Your task to perform on an android device: check android version Image 0: 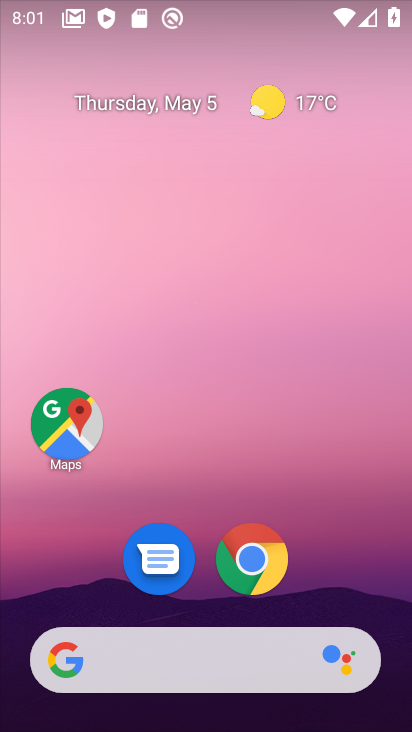
Step 0: drag from (362, 620) to (345, 21)
Your task to perform on an android device: check android version Image 1: 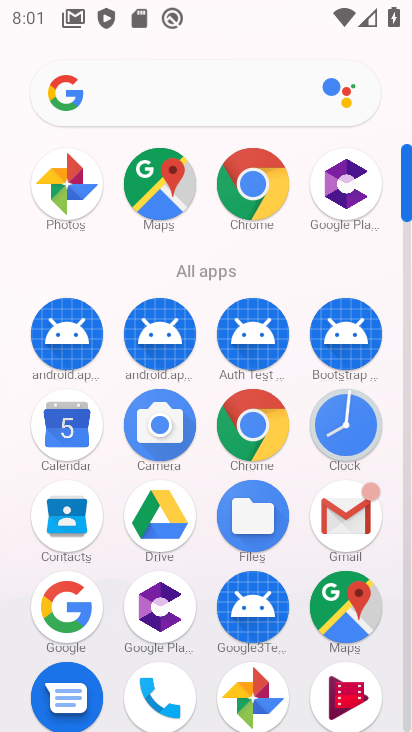
Step 1: drag from (406, 612) to (412, 547)
Your task to perform on an android device: check android version Image 2: 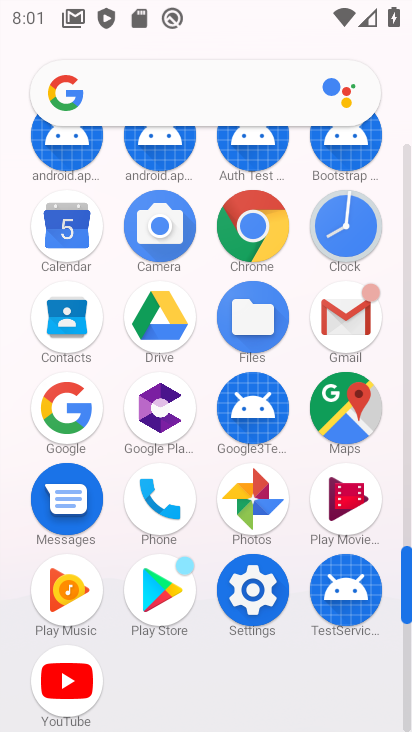
Step 2: click (252, 594)
Your task to perform on an android device: check android version Image 3: 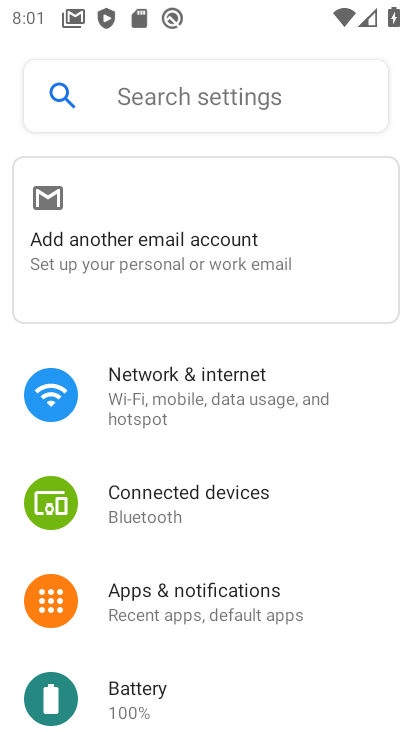
Step 3: drag from (394, 684) to (386, 228)
Your task to perform on an android device: check android version Image 4: 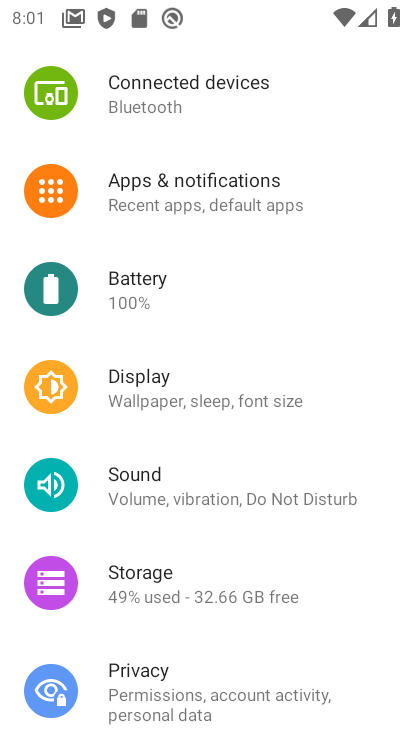
Step 4: drag from (399, 683) to (393, 259)
Your task to perform on an android device: check android version Image 5: 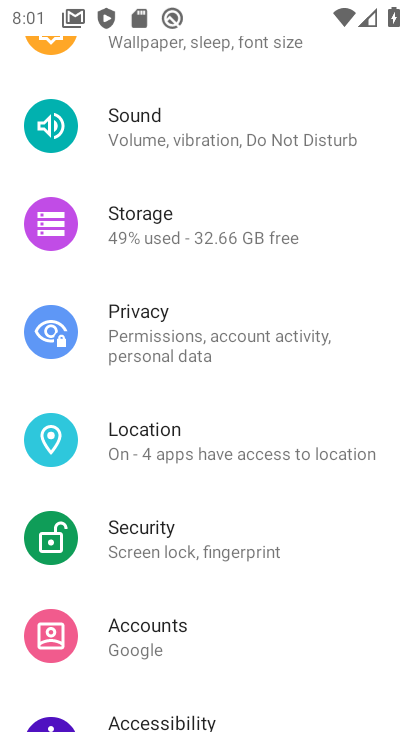
Step 5: drag from (374, 641) to (363, 238)
Your task to perform on an android device: check android version Image 6: 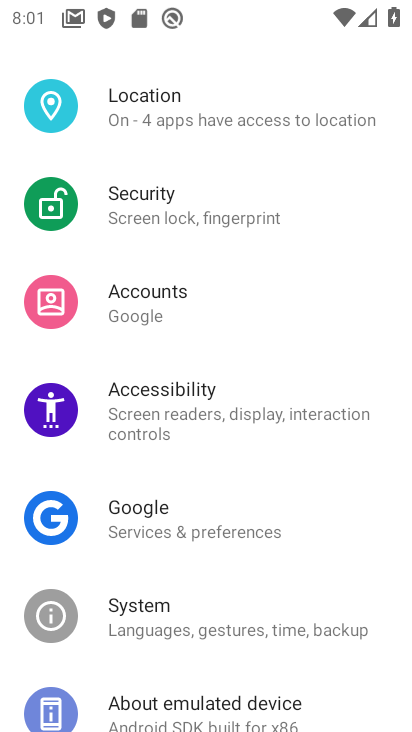
Step 6: drag from (400, 650) to (383, 294)
Your task to perform on an android device: check android version Image 7: 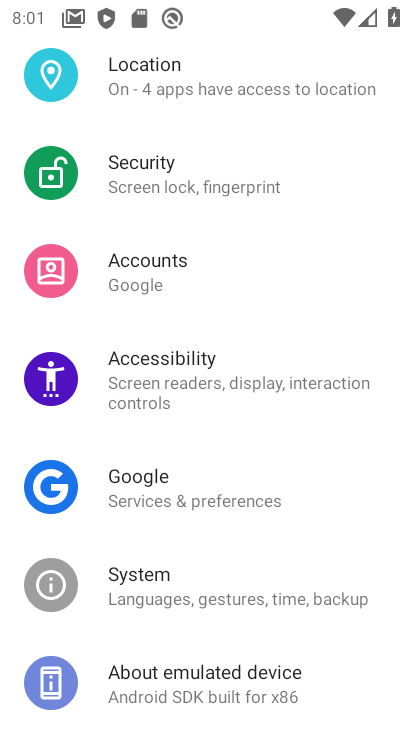
Step 7: click (210, 691)
Your task to perform on an android device: check android version Image 8: 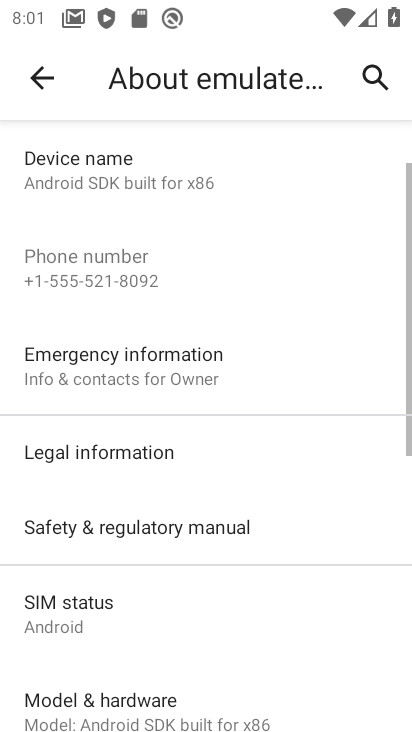
Step 8: drag from (326, 636) to (299, 249)
Your task to perform on an android device: check android version Image 9: 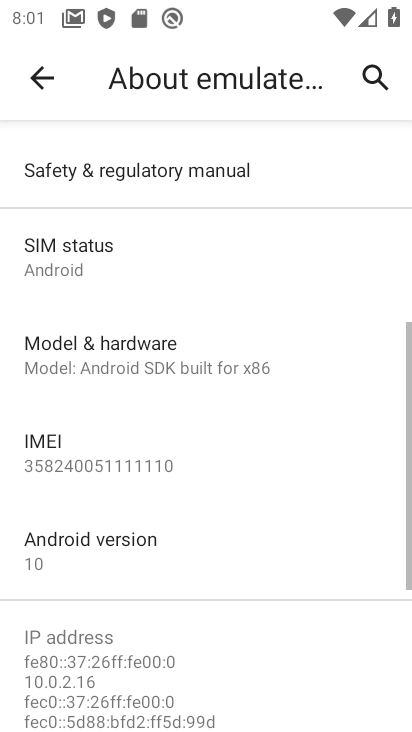
Step 9: click (62, 542)
Your task to perform on an android device: check android version Image 10: 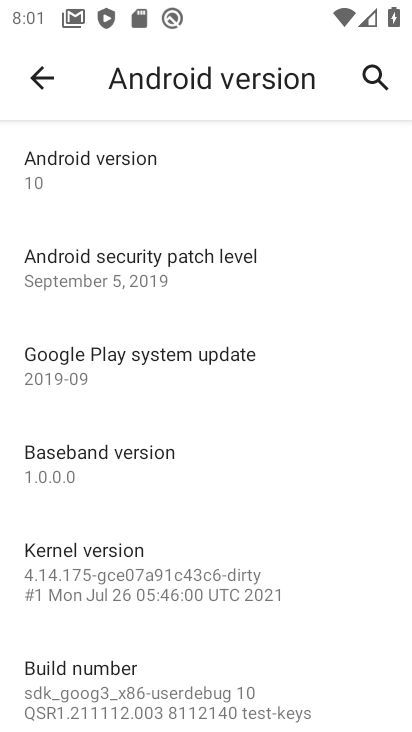
Step 10: drag from (299, 608) to (294, 276)
Your task to perform on an android device: check android version Image 11: 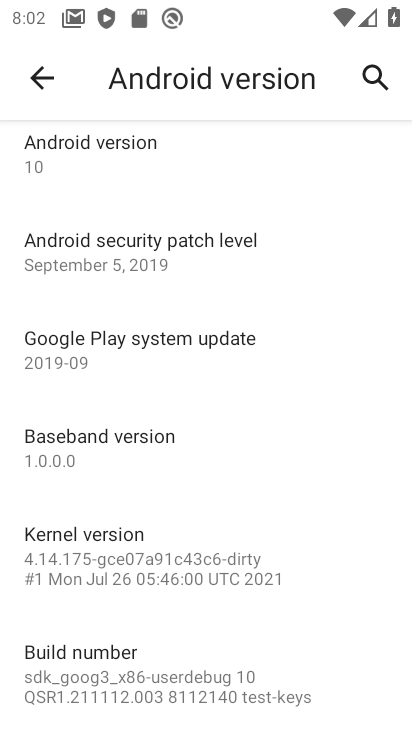
Step 11: click (78, 140)
Your task to perform on an android device: check android version Image 12: 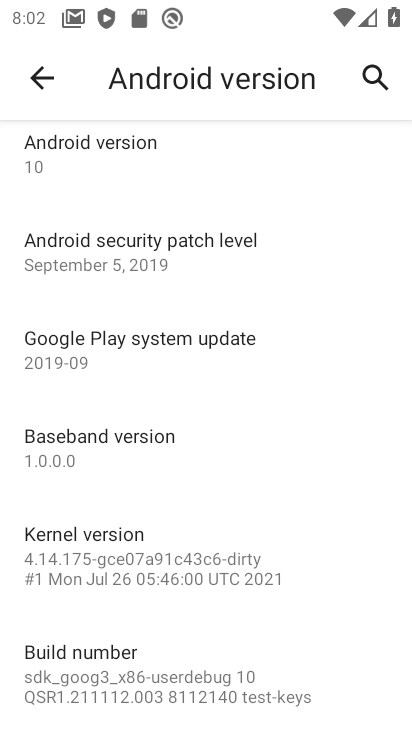
Step 12: click (72, 142)
Your task to perform on an android device: check android version Image 13: 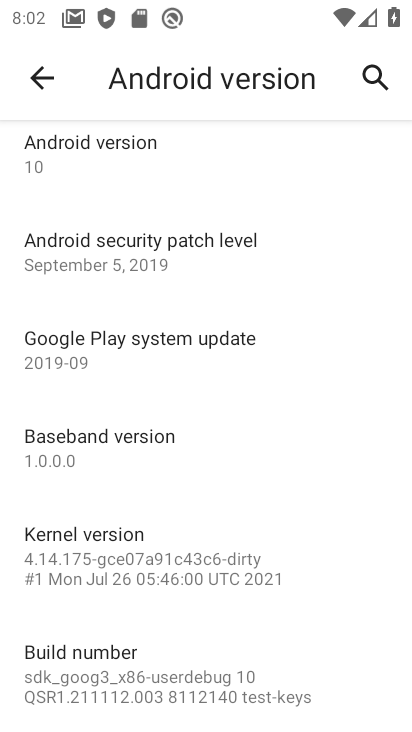
Step 13: click (72, 142)
Your task to perform on an android device: check android version Image 14: 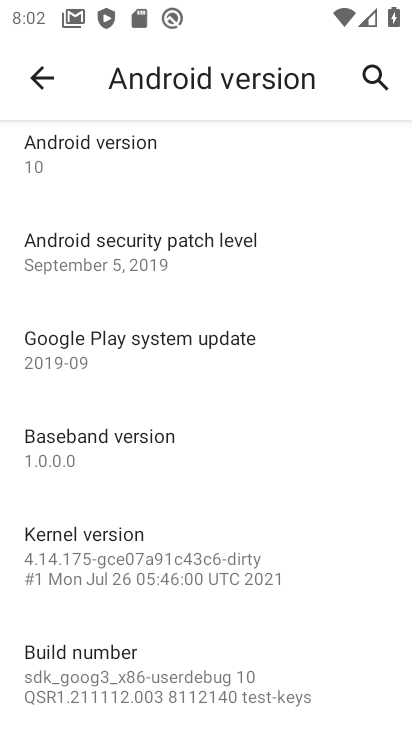
Step 14: task complete